Your task to perform on an android device: turn notification dots on Image 0: 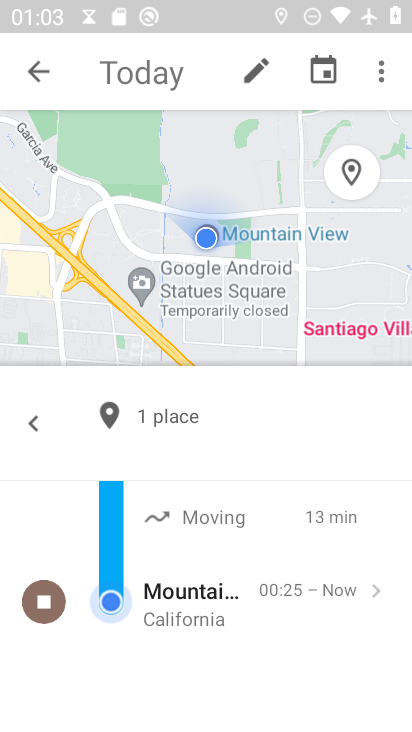
Step 0: press home button
Your task to perform on an android device: turn notification dots on Image 1: 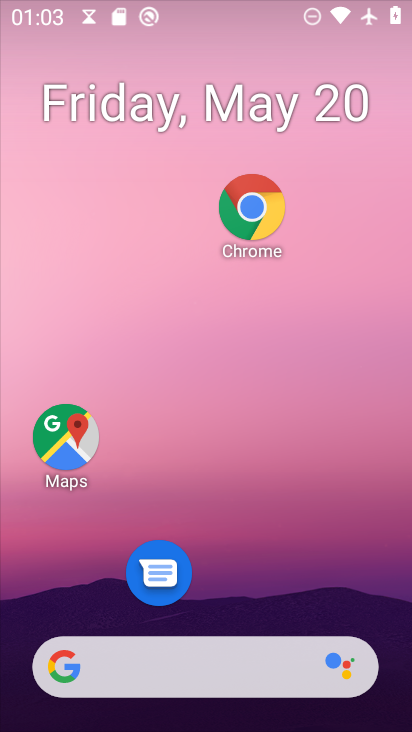
Step 1: drag from (268, 601) to (327, 37)
Your task to perform on an android device: turn notification dots on Image 2: 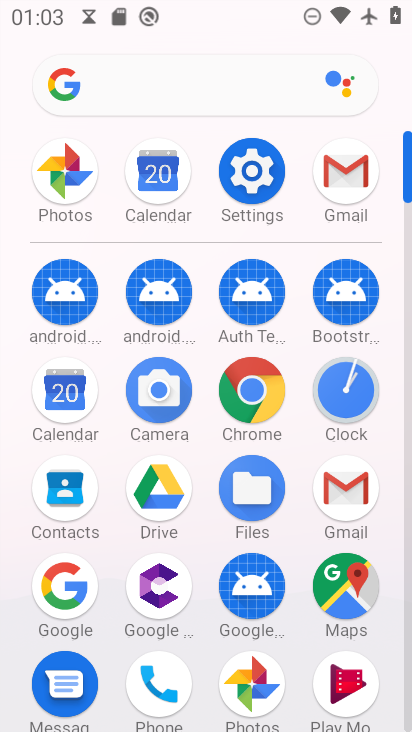
Step 2: click (244, 172)
Your task to perform on an android device: turn notification dots on Image 3: 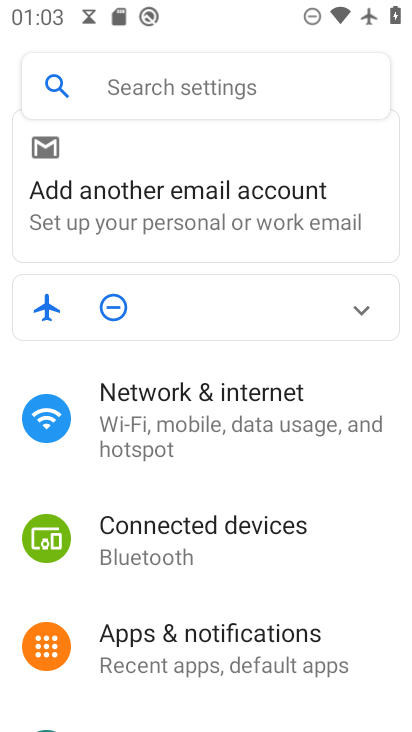
Step 3: drag from (171, 646) to (194, 314)
Your task to perform on an android device: turn notification dots on Image 4: 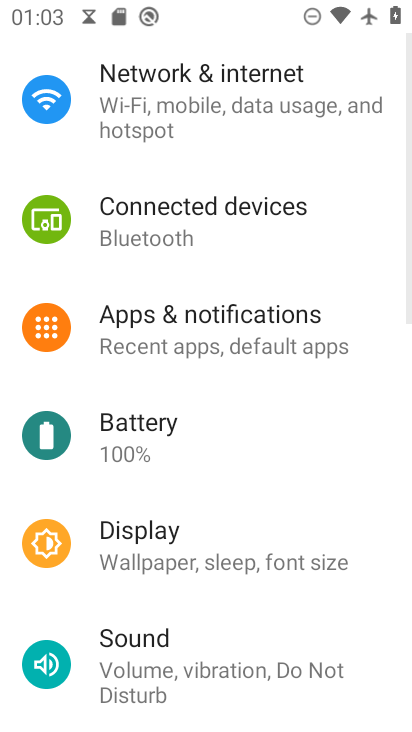
Step 4: click (192, 324)
Your task to perform on an android device: turn notification dots on Image 5: 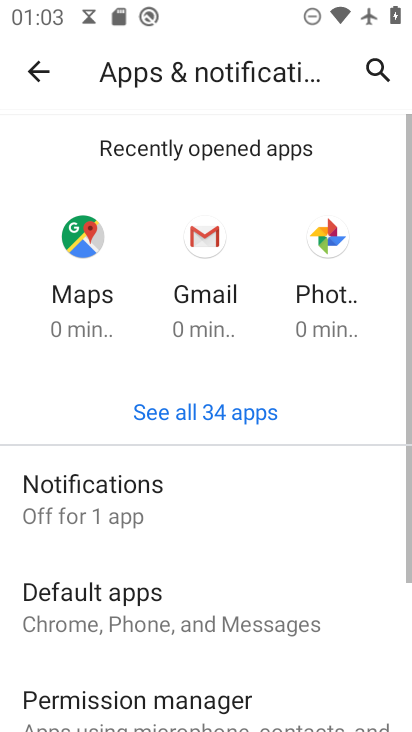
Step 5: click (184, 505)
Your task to perform on an android device: turn notification dots on Image 6: 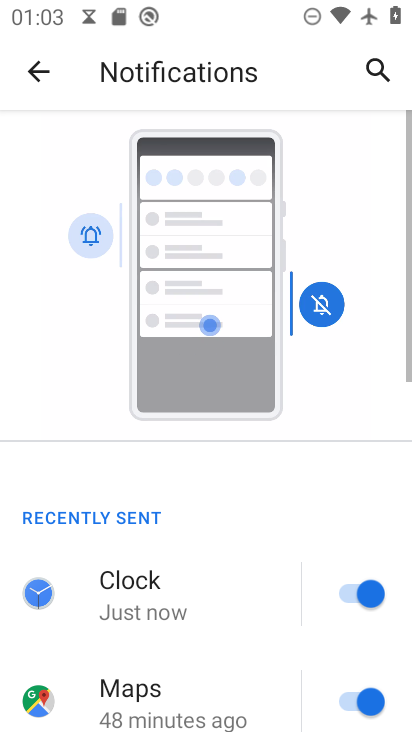
Step 6: drag from (220, 627) to (263, 161)
Your task to perform on an android device: turn notification dots on Image 7: 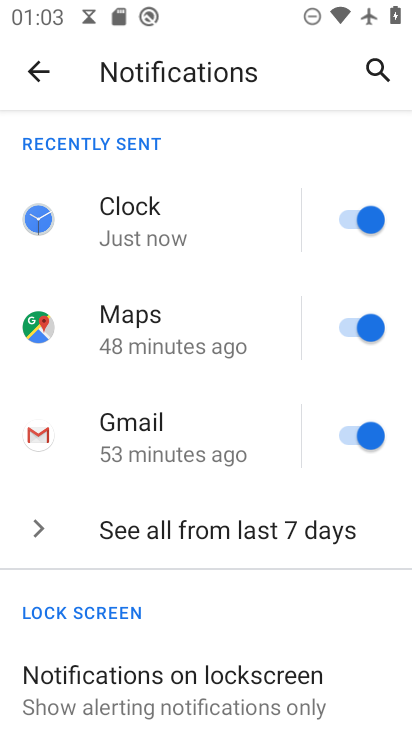
Step 7: drag from (240, 599) to (299, 126)
Your task to perform on an android device: turn notification dots on Image 8: 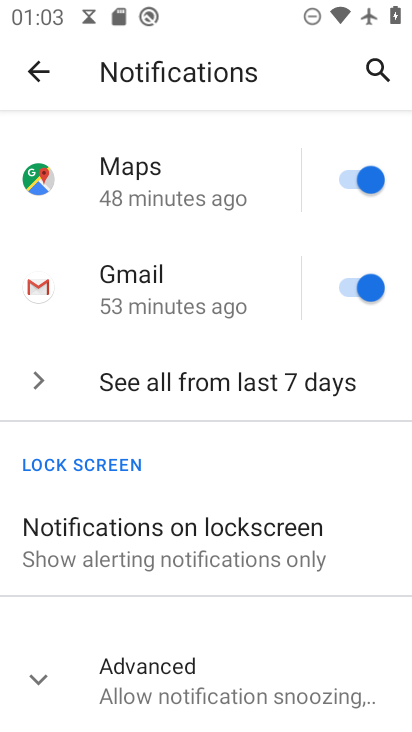
Step 8: click (174, 669)
Your task to perform on an android device: turn notification dots on Image 9: 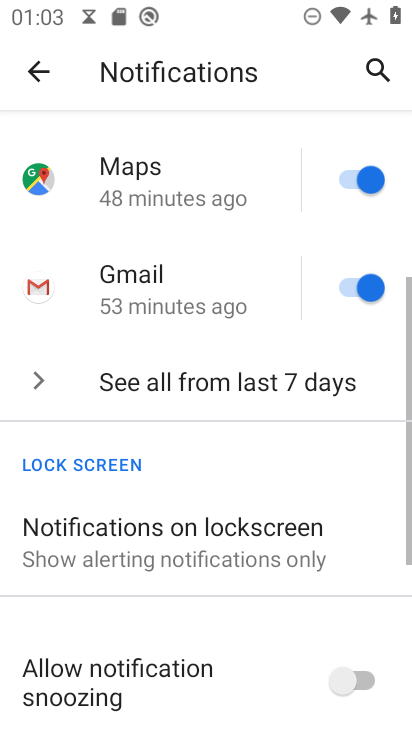
Step 9: task complete